Your task to perform on an android device: find which apps use the phone's location Image 0: 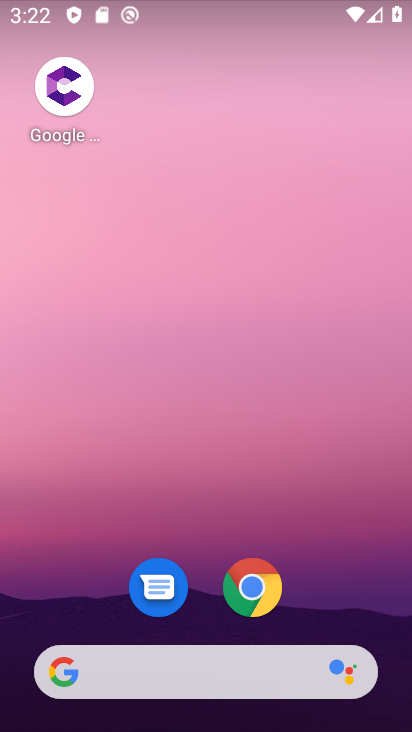
Step 0: drag from (338, 555) to (274, 19)
Your task to perform on an android device: find which apps use the phone's location Image 1: 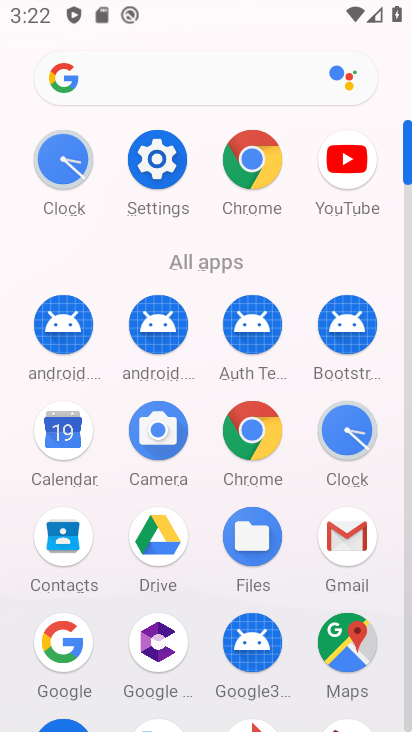
Step 1: drag from (3, 576) to (13, 256)
Your task to perform on an android device: find which apps use the phone's location Image 2: 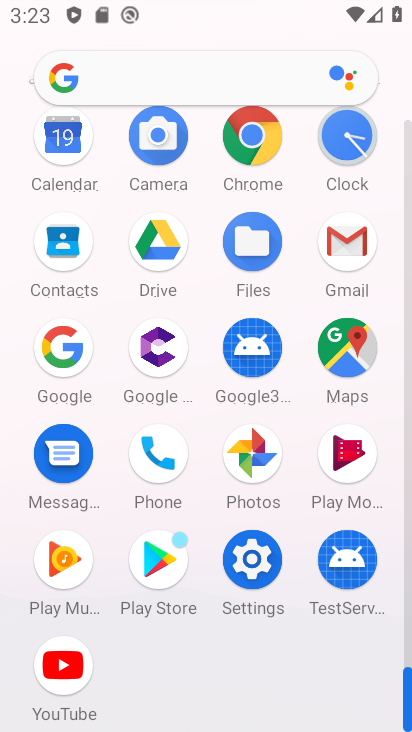
Step 2: click (252, 556)
Your task to perform on an android device: find which apps use the phone's location Image 3: 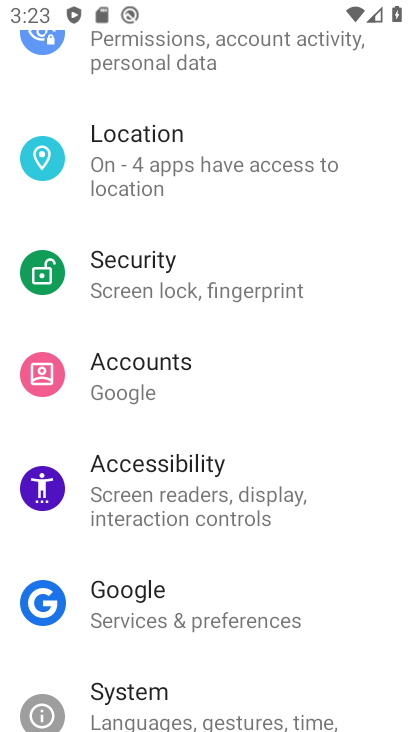
Step 3: click (210, 164)
Your task to perform on an android device: find which apps use the phone's location Image 4: 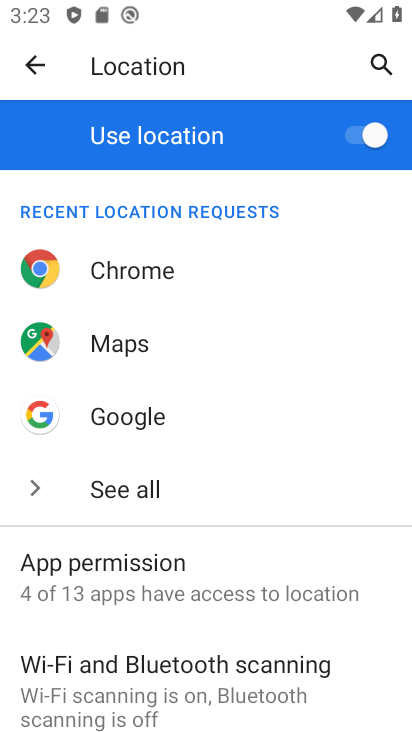
Step 4: click (169, 575)
Your task to perform on an android device: find which apps use the phone's location Image 5: 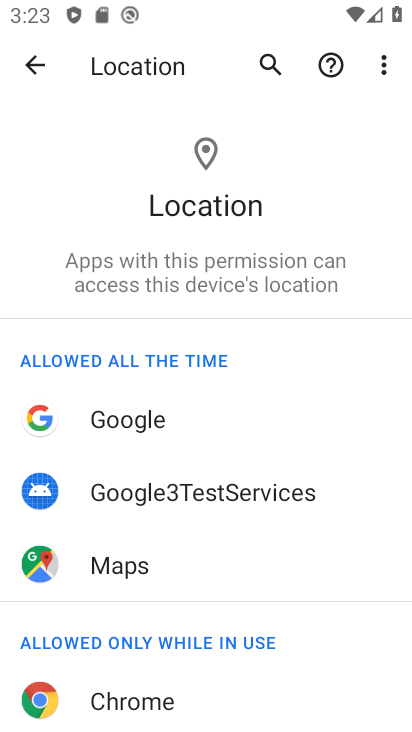
Step 5: task complete